Your task to perform on an android device: Open Google Chrome and click the shortcut for Amazon.com Image 0: 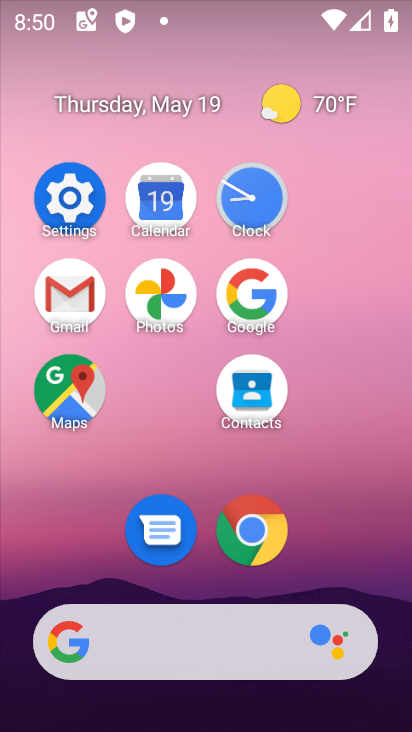
Step 0: click (272, 511)
Your task to perform on an android device: Open Google Chrome and click the shortcut for Amazon.com Image 1: 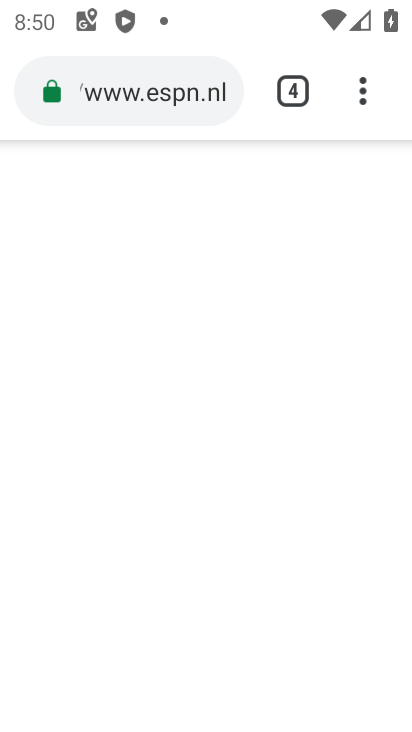
Step 1: click (266, 90)
Your task to perform on an android device: Open Google Chrome and click the shortcut for Amazon.com Image 2: 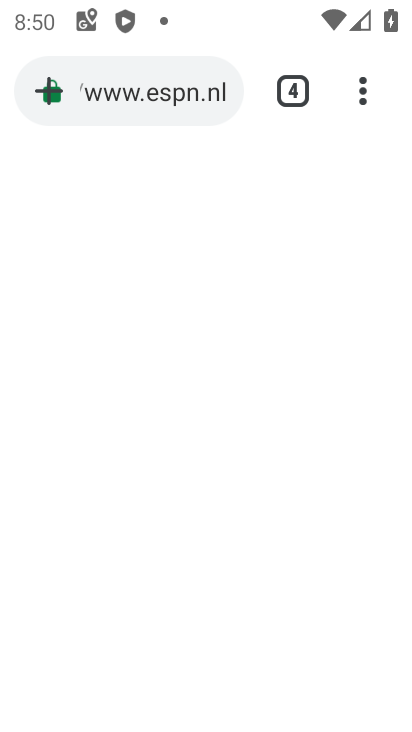
Step 2: click (300, 99)
Your task to perform on an android device: Open Google Chrome and click the shortcut for Amazon.com Image 3: 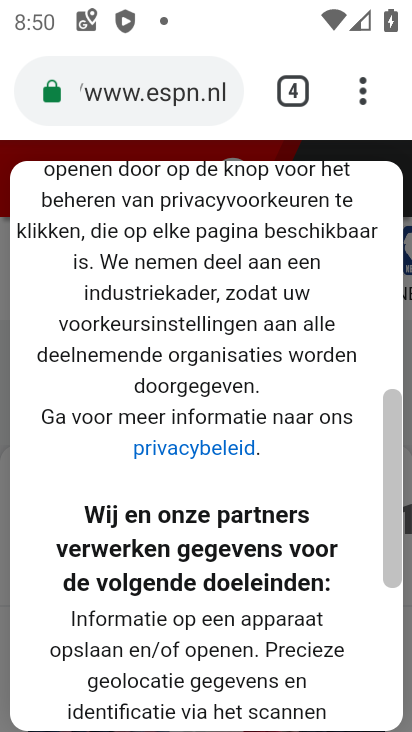
Step 3: click (297, 99)
Your task to perform on an android device: Open Google Chrome and click the shortcut for Amazon.com Image 4: 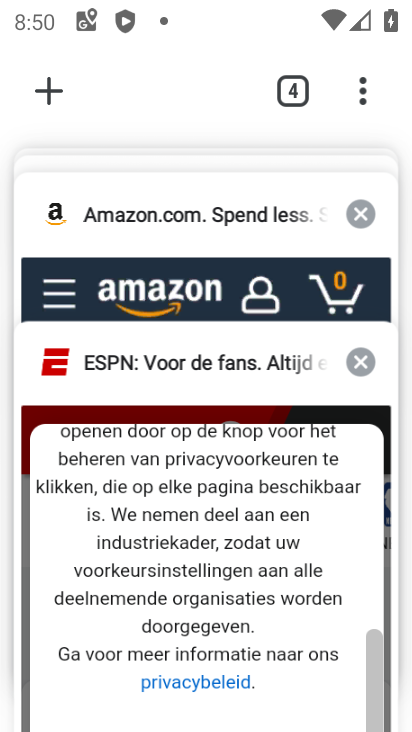
Step 4: click (213, 220)
Your task to perform on an android device: Open Google Chrome and click the shortcut for Amazon.com Image 5: 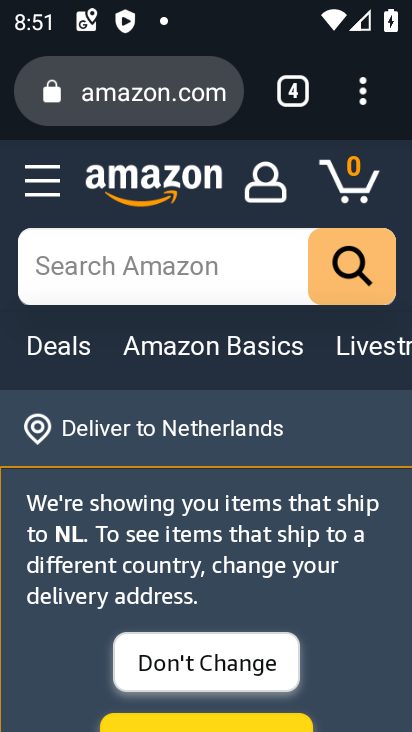
Step 5: click (372, 77)
Your task to perform on an android device: Open Google Chrome and click the shortcut for Amazon.com Image 6: 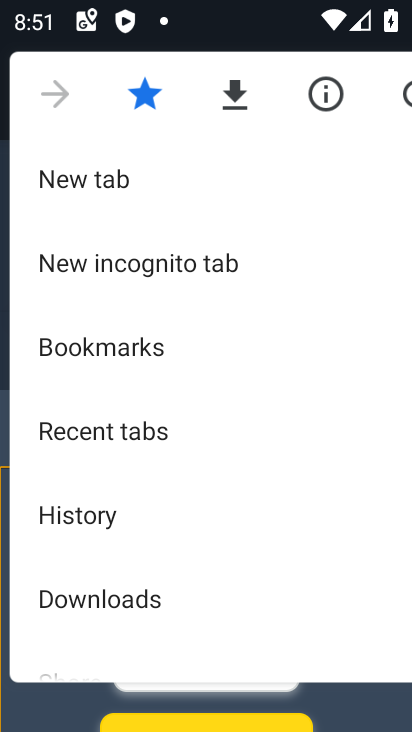
Step 6: drag from (197, 512) to (243, 198)
Your task to perform on an android device: Open Google Chrome and click the shortcut for Amazon.com Image 7: 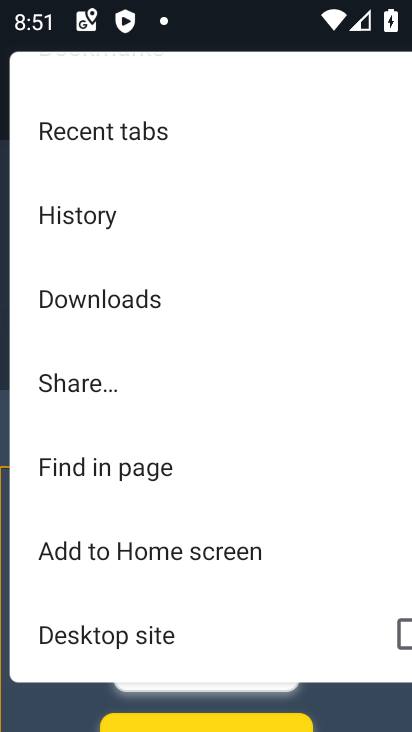
Step 7: click (231, 543)
Your task to perform on an android device: Open Google Chrome and click the shortcut for Amazon.com Image 8: 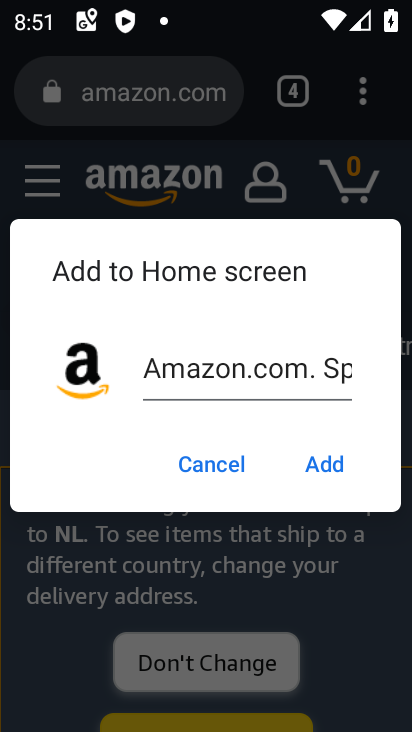
Step 8: click (304, 465)
Your task to perform on an android device: Open Google Chrome and click the shortcut for Amazon.com Image 9: 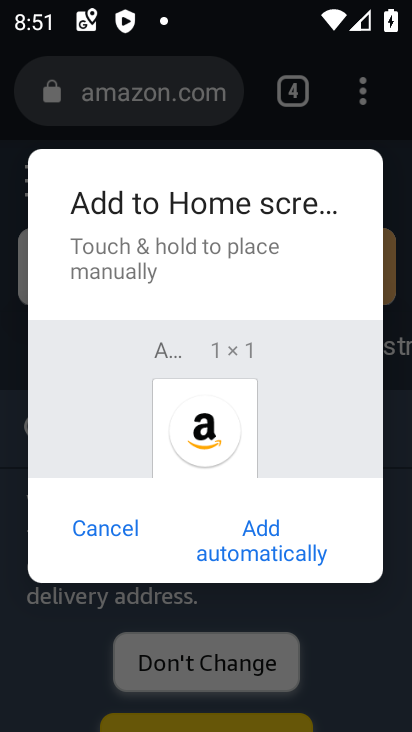
Step 9: click (281, 536)
Your task to perform on an android device: Open Google Chrome and click the shortcut for Amazon.com Image 10: 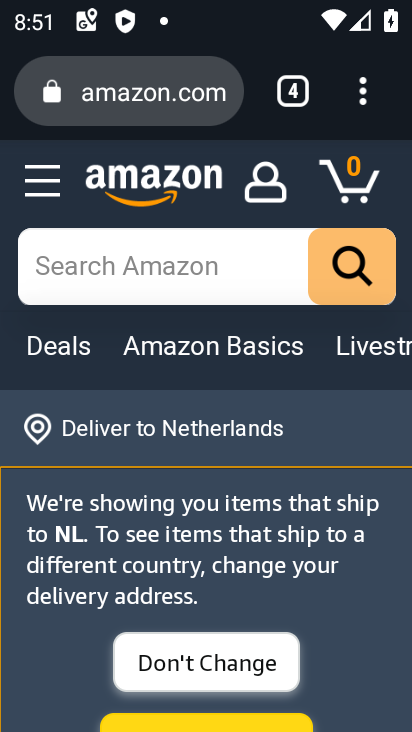
Step 10: task complete